Your task to perform on an android device: See recent photos Image 0: 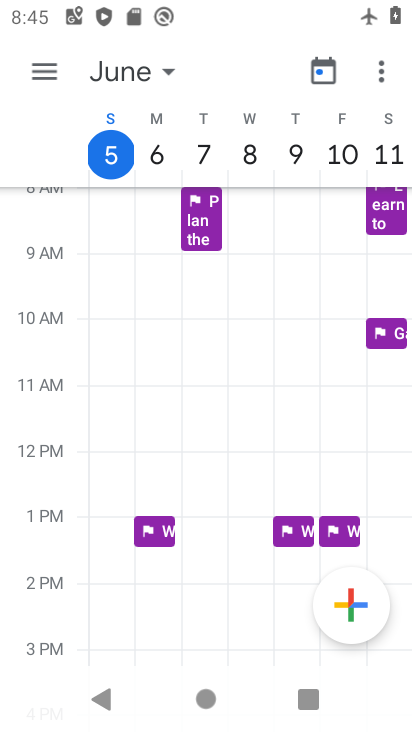
Step 0: press home button
Your task to perform on an android device: See recent photos Image 1: 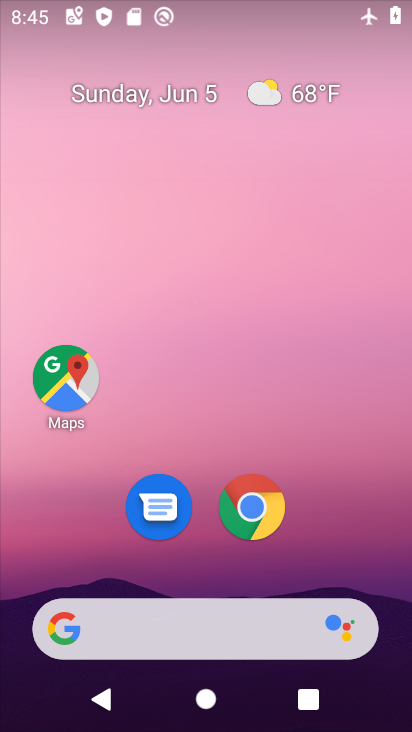
Step 1: drag from (218, 449) to (243, 21)
Your task to perform on an android device: See recent photos Image 2: 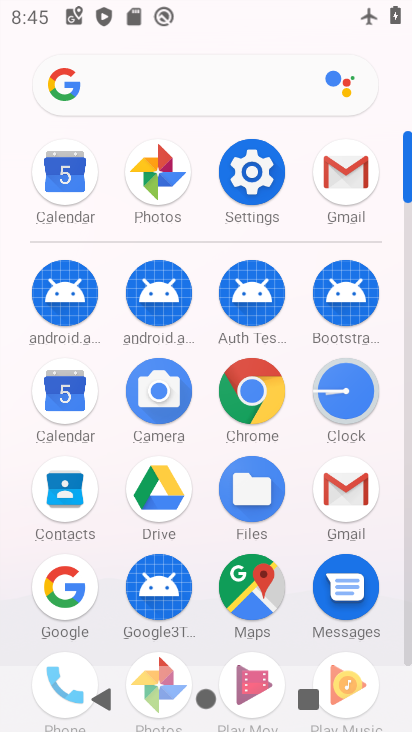
Step 2: drag from (213, 526) to (233, 100)
Your task to perform on an android device: See recent photos Image 3: 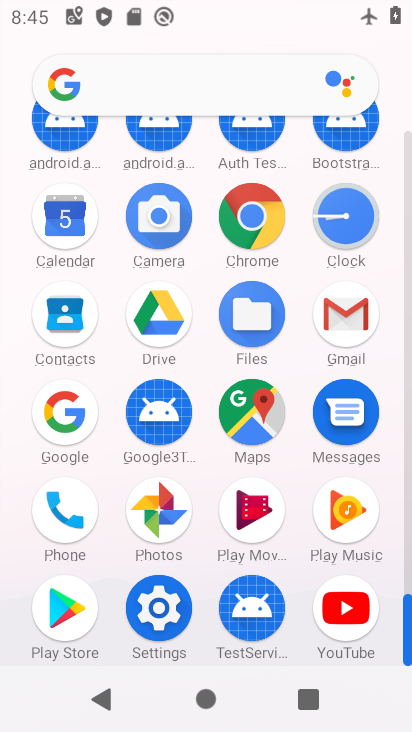
Step 3: click (161, 518)
Your task to perform on an android device: See recent photos Image 4: 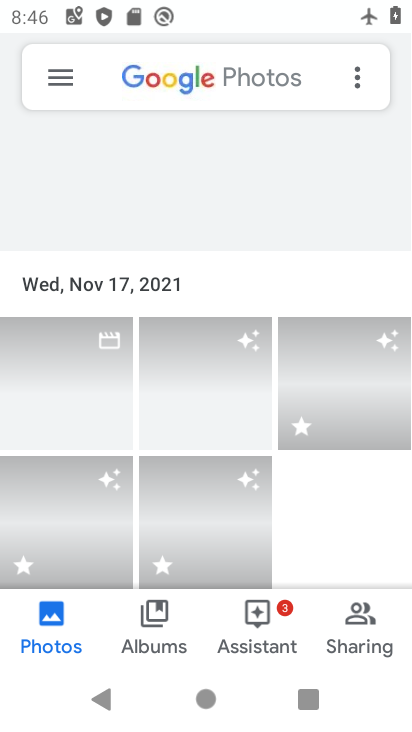
Step 4: click (74, 504)
Your task to perform on an android device: See recent photos Image 5: 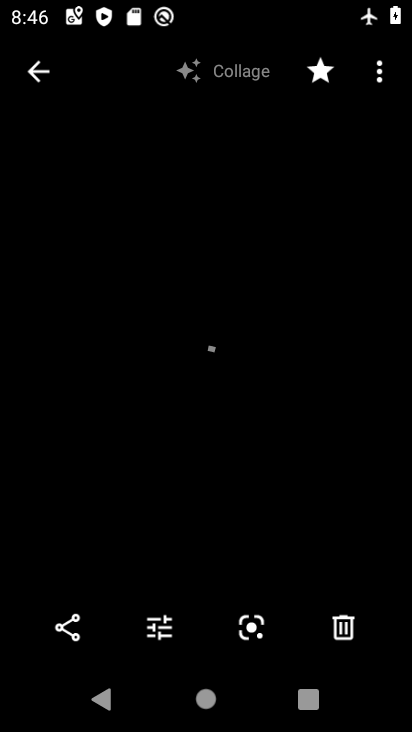
Step 5: drag from (136, 423) to (405, 344)
Your task to perform on an android device: See recent photos Image 6: 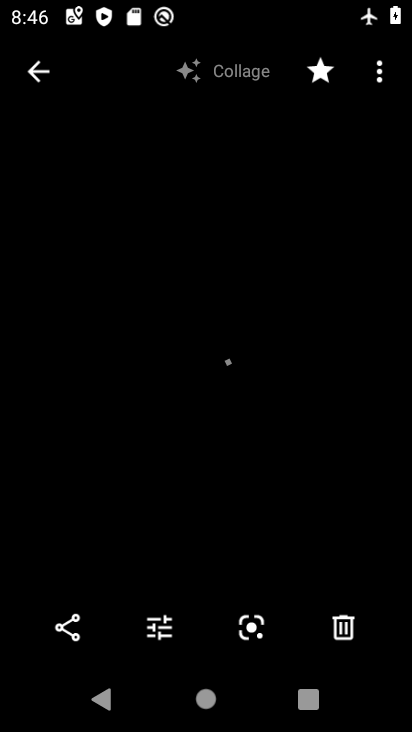
Step 6: click (46, 67)
Your task to perform on an android device: See recent photos Image 7: 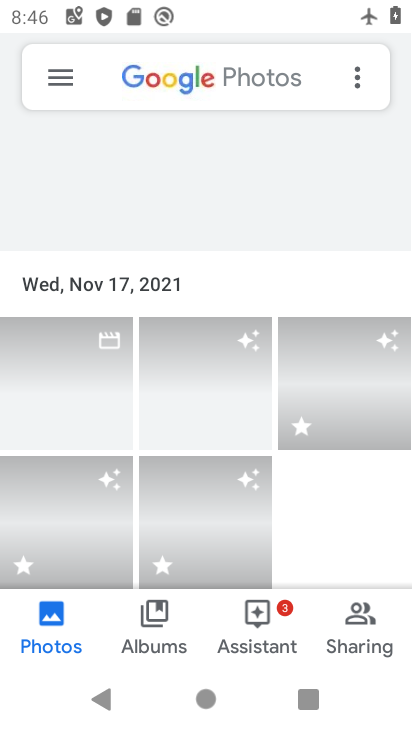
Step 7: task complete